Your task to perform on an android device: change the clock display to analog Image 0: 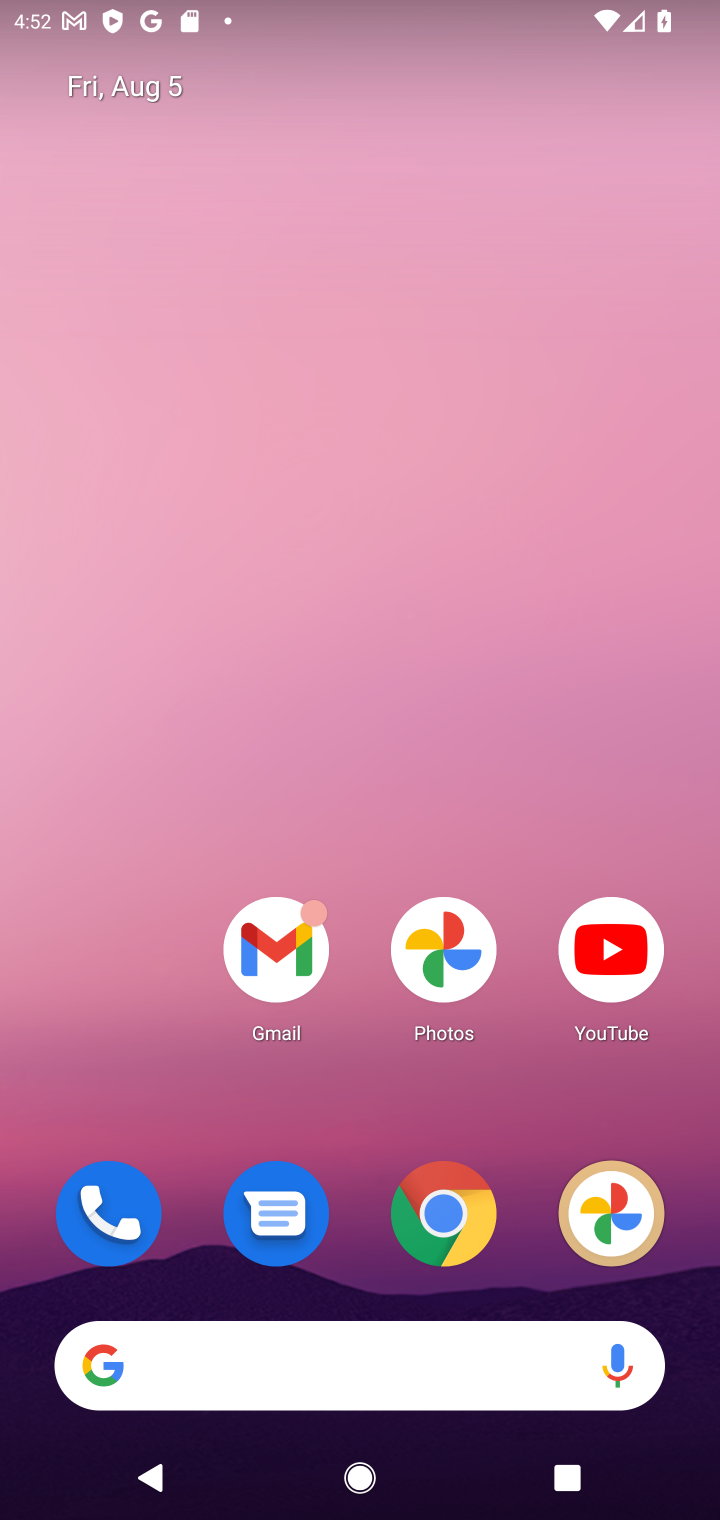
Step 0: drag from (371, 1295) to (377, 220)
Your task to perform on an android device: change the clock display to analog Image 1: 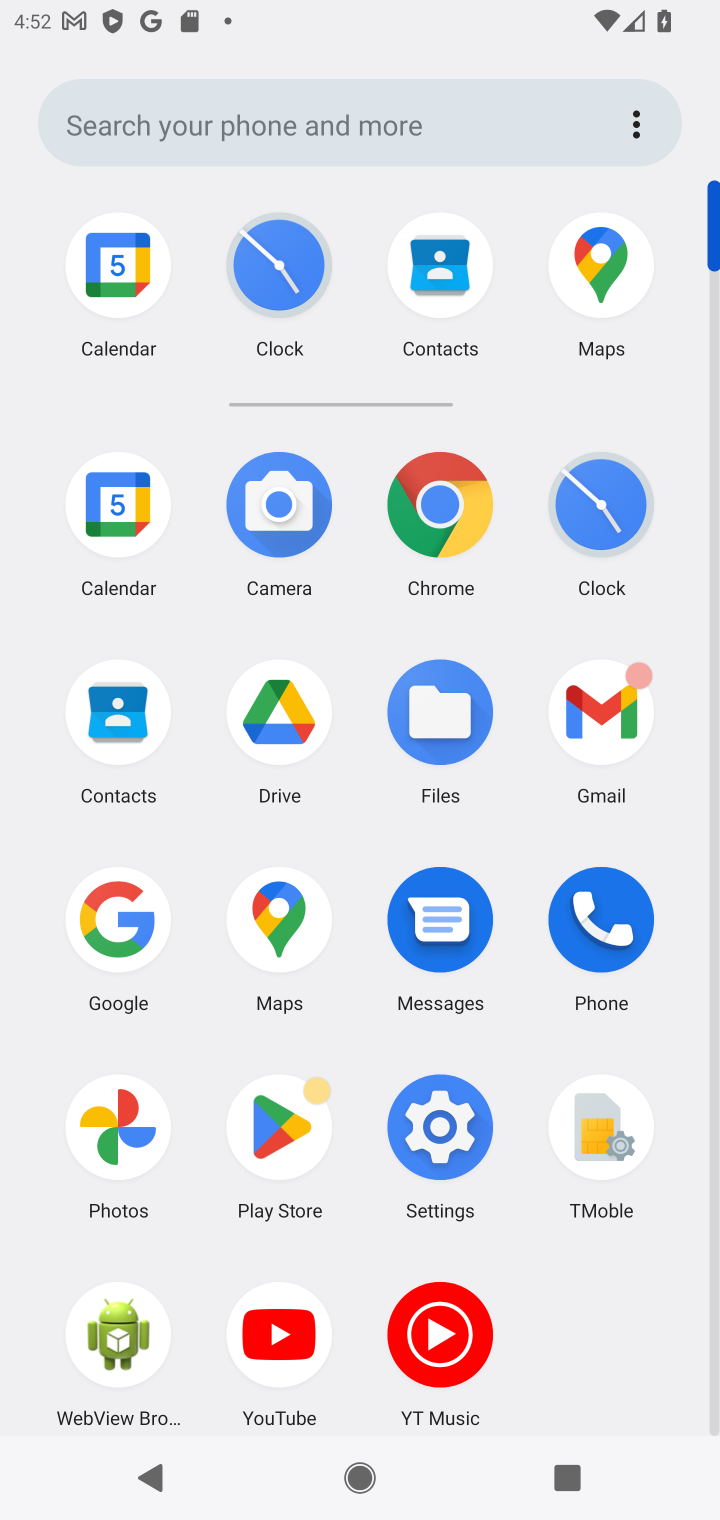
Step 1: click (293, 233)
Your task to perform on an android device: change the clock display to analog Image 2: 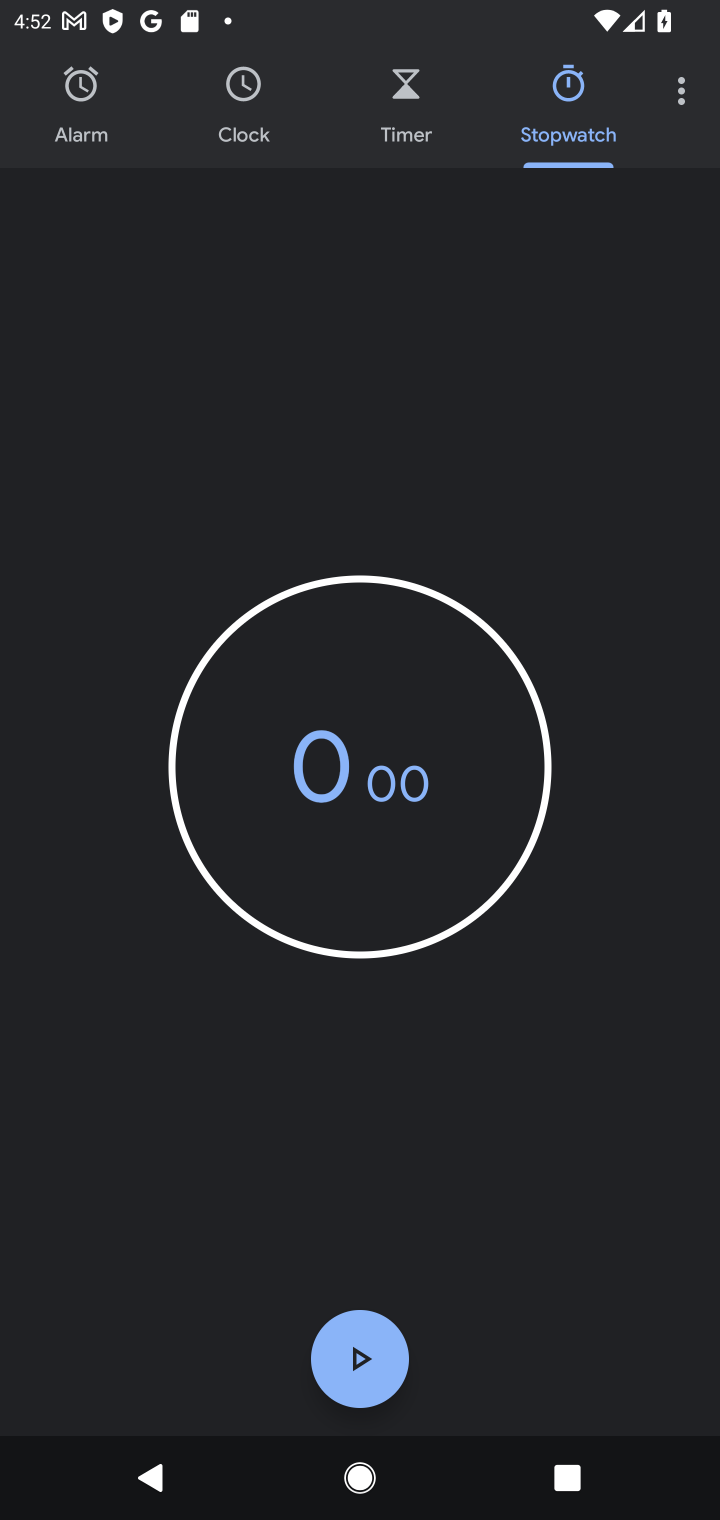
Step 2: click (674, 76)
Your task to perform on an android device: change the clock display to analog Image 3: 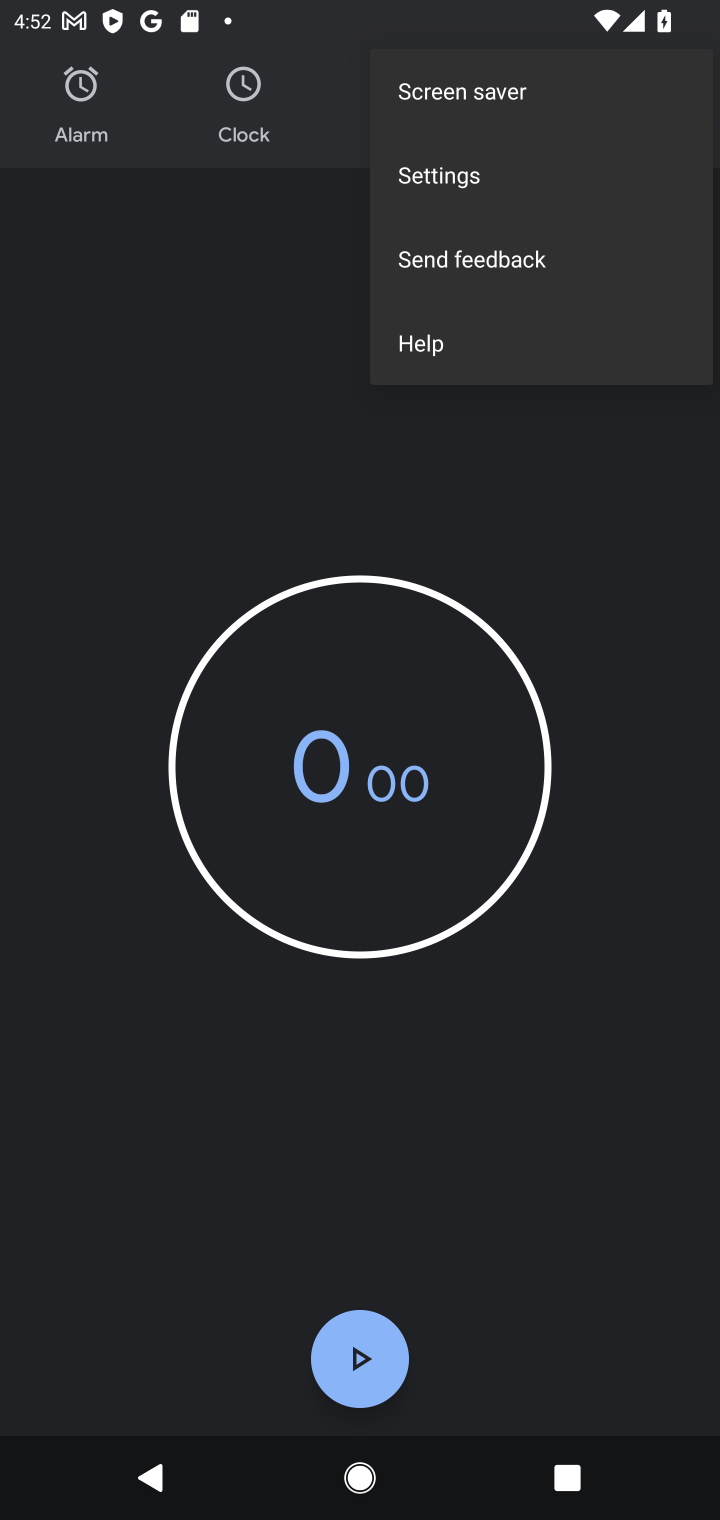
Step 3: click (476, 157)
Your task to perform on an android device: change the clock display to analog Image 4: 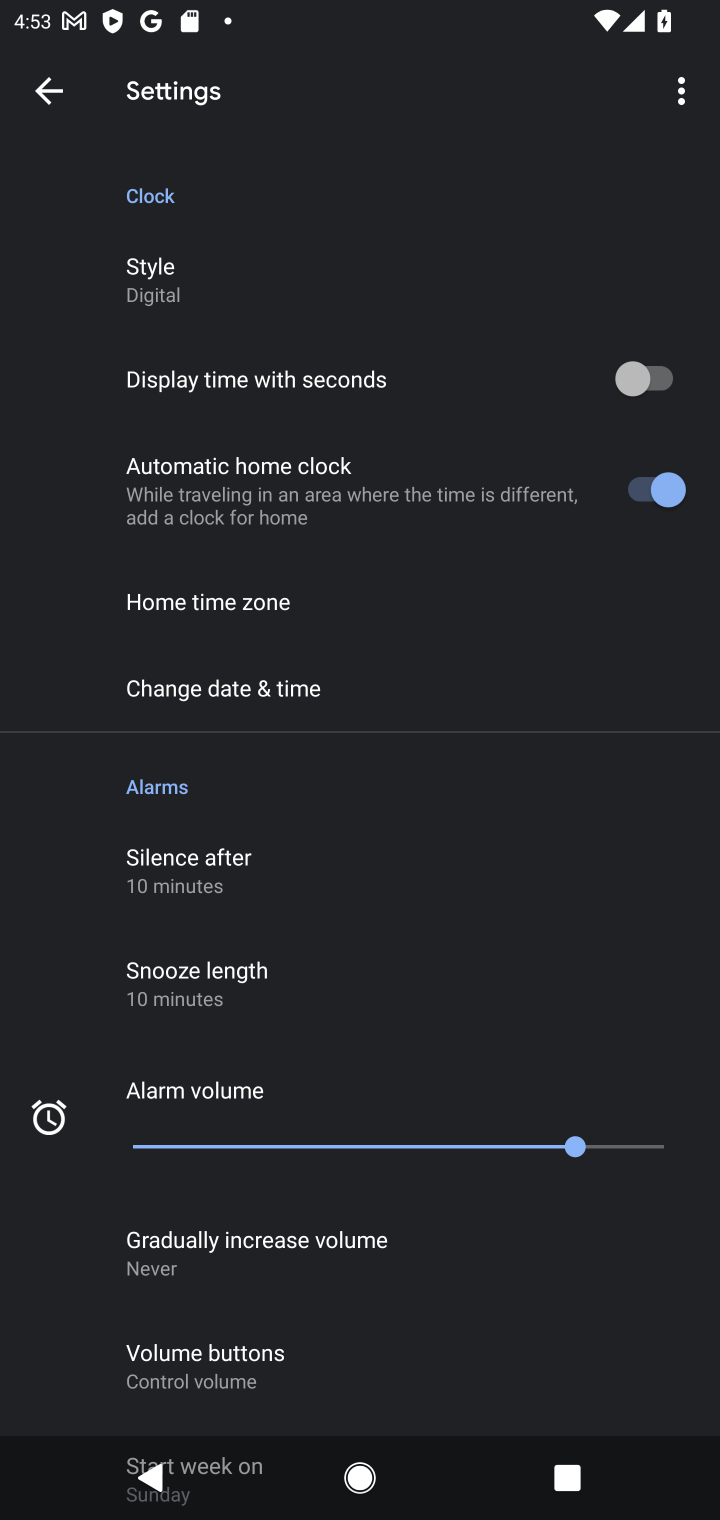
Step 4: click (323, 665)
Your task to perform on an android device: change the clock display to analog Image 5: 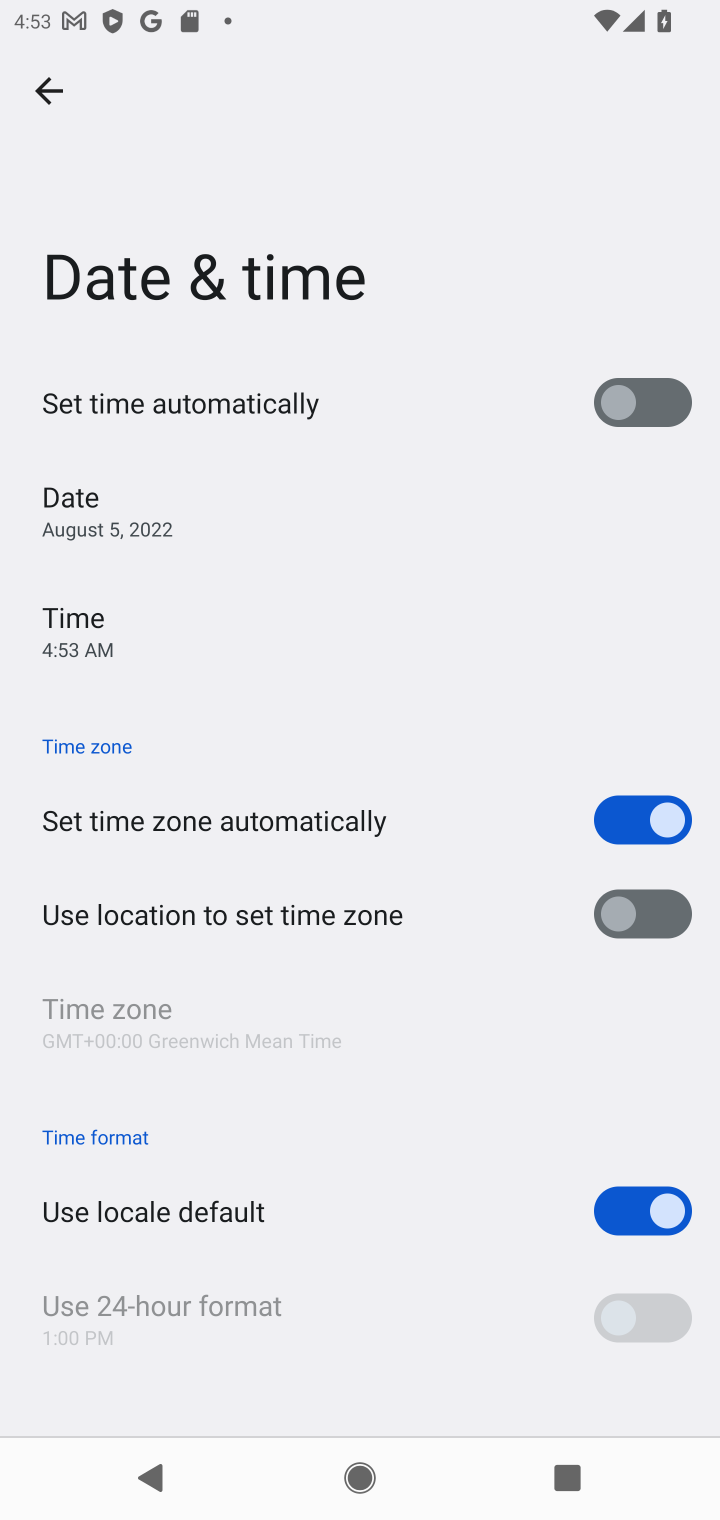
Step 5: task complete